Your task to perform on an android device: Go to calendar. Show me events next week Image 0: 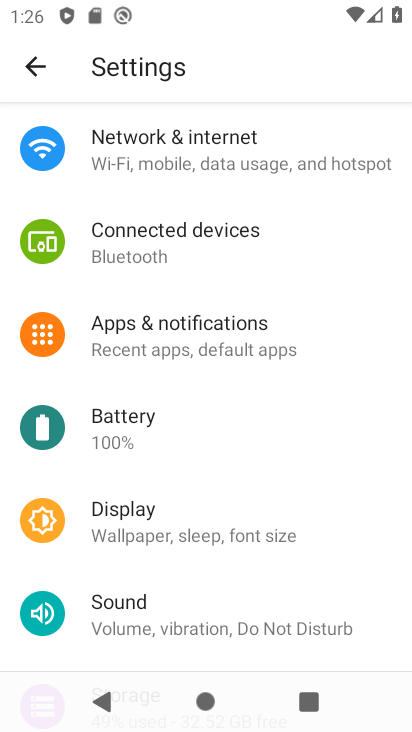
Step 0: press home button
Your task to perform on an android device: Go to calendar. Show me events next week Image 1: 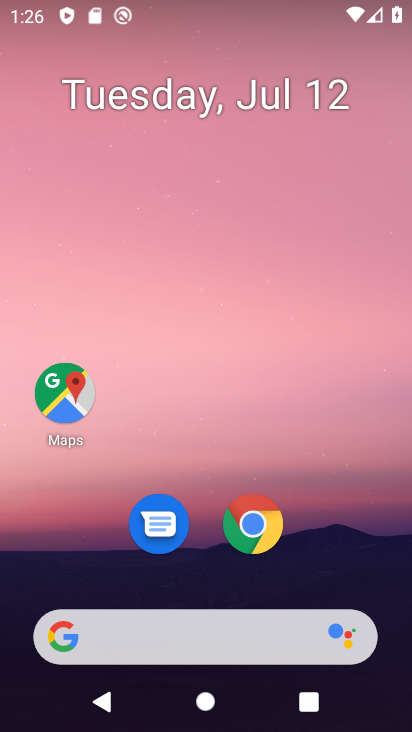
Step 1: drag from (312, 543) to (241, 35)
Your task to perform on an android device: Go to calendar. Show me events next week Image 2: 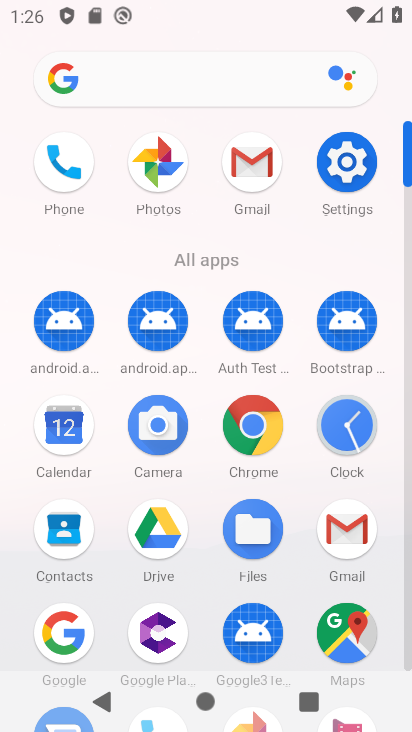
Step 2: click (57, 441)
Your task to perform on an android device: Go to calendar. Show me events next week Image 3: 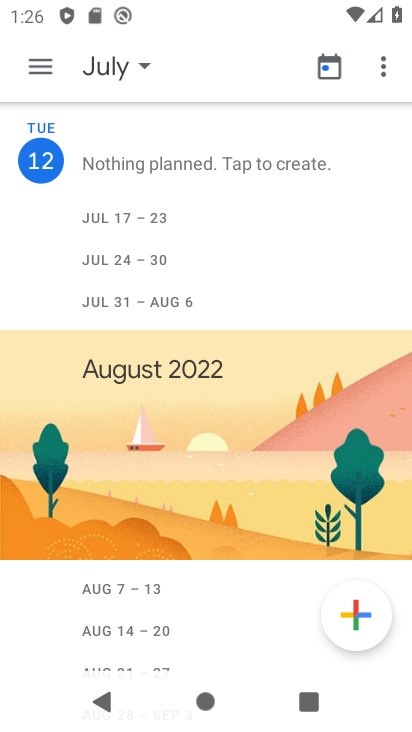
Step 3: task complete